Your task to perform on an android device: find photos in the google photos app Image 0: 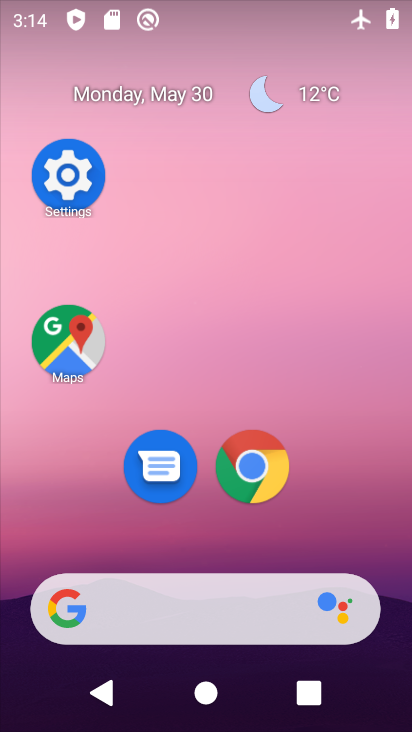
Step 0: drag from (213, 568) to (195, 206)
Your task to perform on an android device: find photos in the google photos app Image 1: 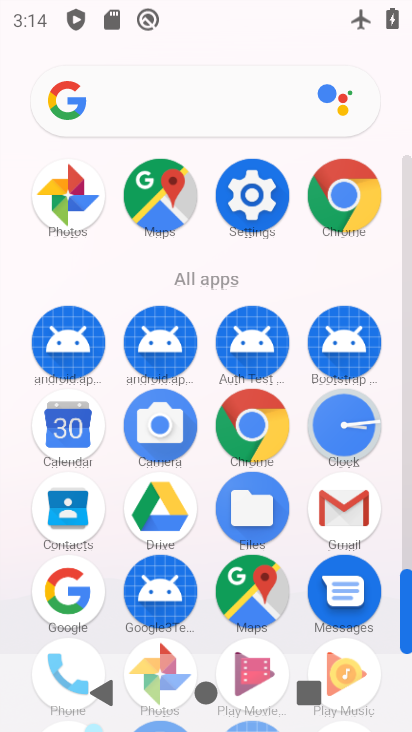
Step 1: drag from (51, 207) to (142, 242)
Your task to perform on an android device: find photos in the google photos app Image 2: 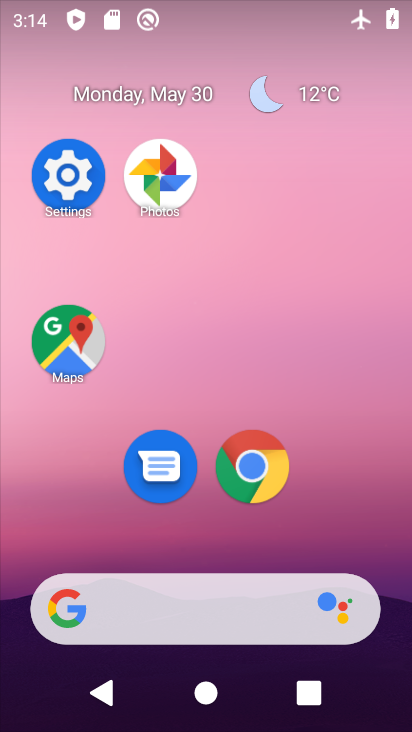
Step 2: click (176, 215)
Your task to perform on an android device: find photos in the google photos app Image 3: 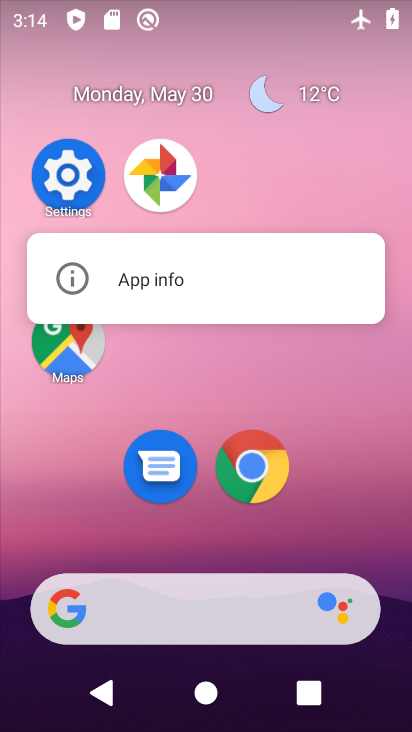
Step 3: click (169, 176)
Your task to perform on an android device: find photos in the google photos app Image 4: 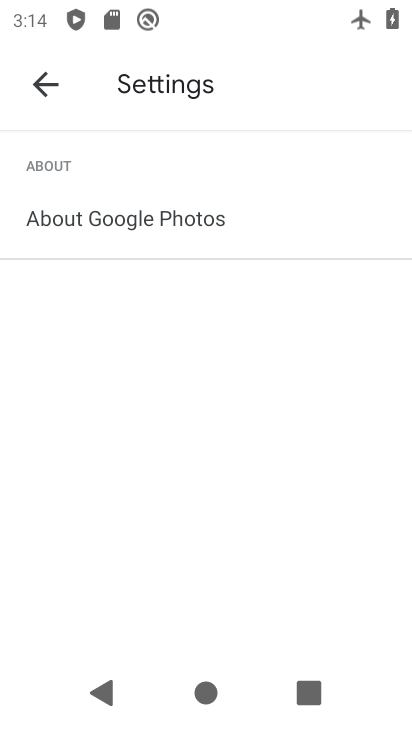
Step 4: click (57, 82)
Your task to perform on an android device: find photos in the google photos app Image 5: 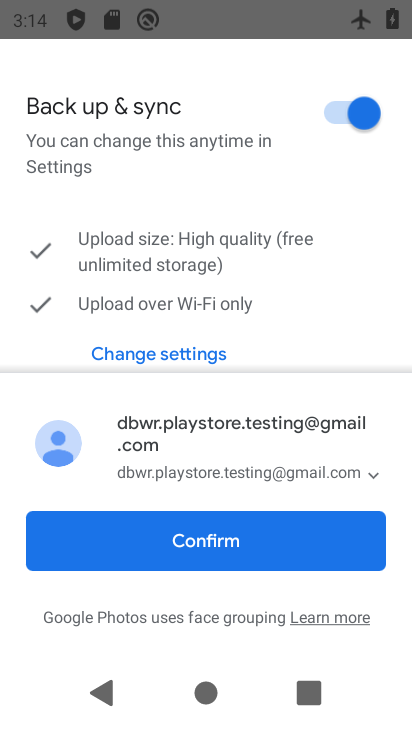
Step 5: click (158, 525)
Your task to perform on an android device: find photos in the google photos app Image 6: 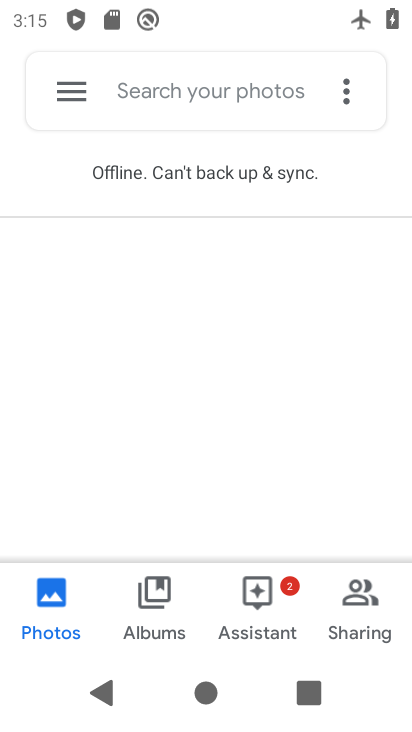
Step 6: task complete